Your task to perform on an android device: turn off airplane mode Image 0: 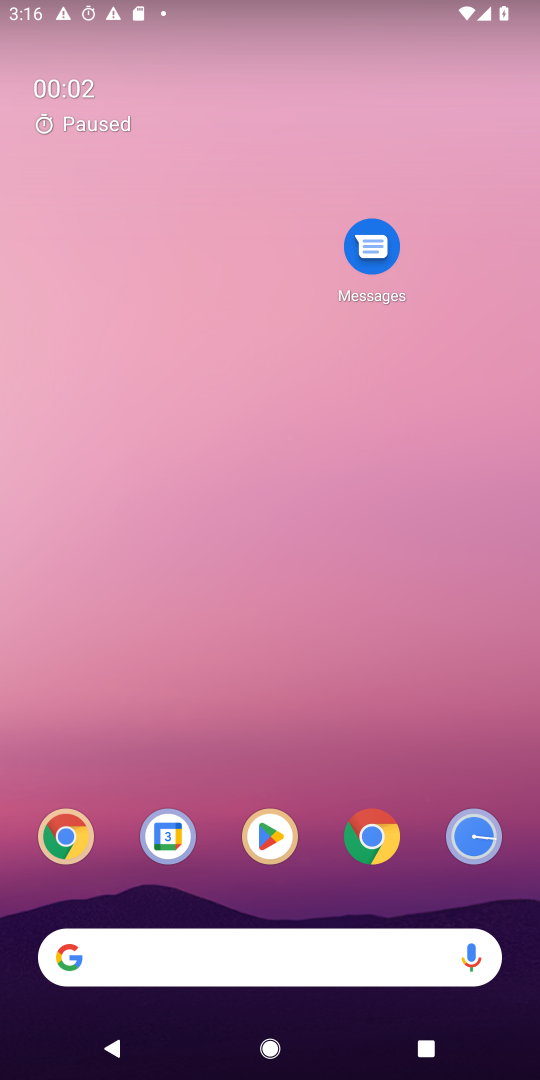
Step 0: drag from (222, 629) to (384, 156)
Your task to perform on an android device: turn off airplane mode Image 1: 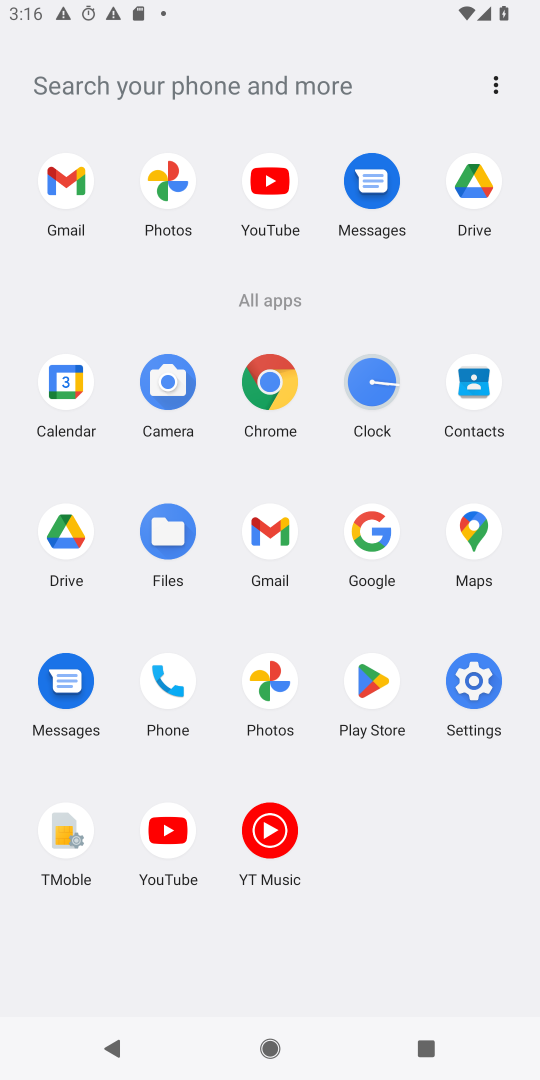
Step 1: click (474, 714)
Your task to perform on an android device: turn off airplane mode Image 2: 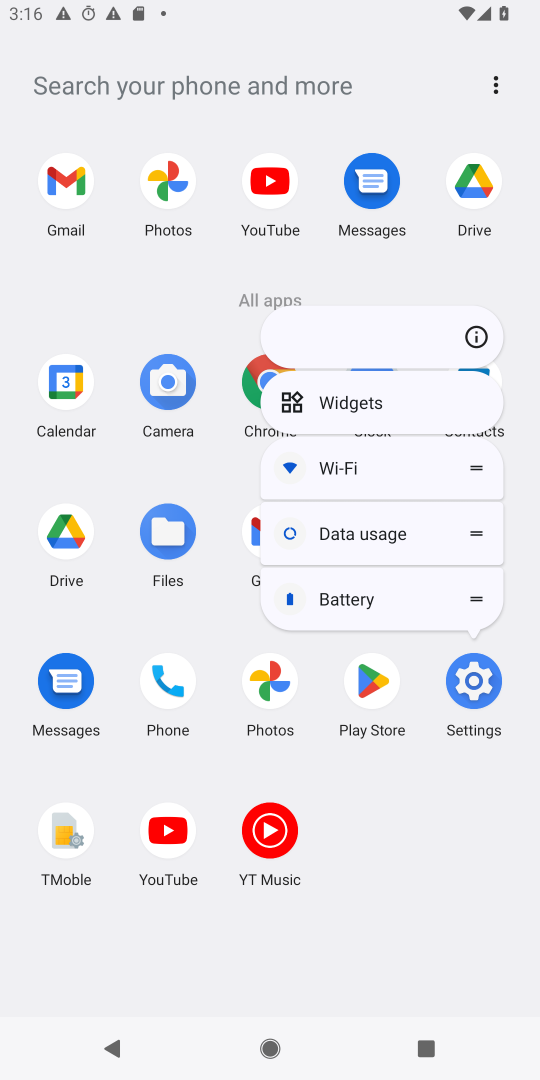
Step 2: click (474, 698)
Your task to perform on an android device: turn off airplane mode Image 3: 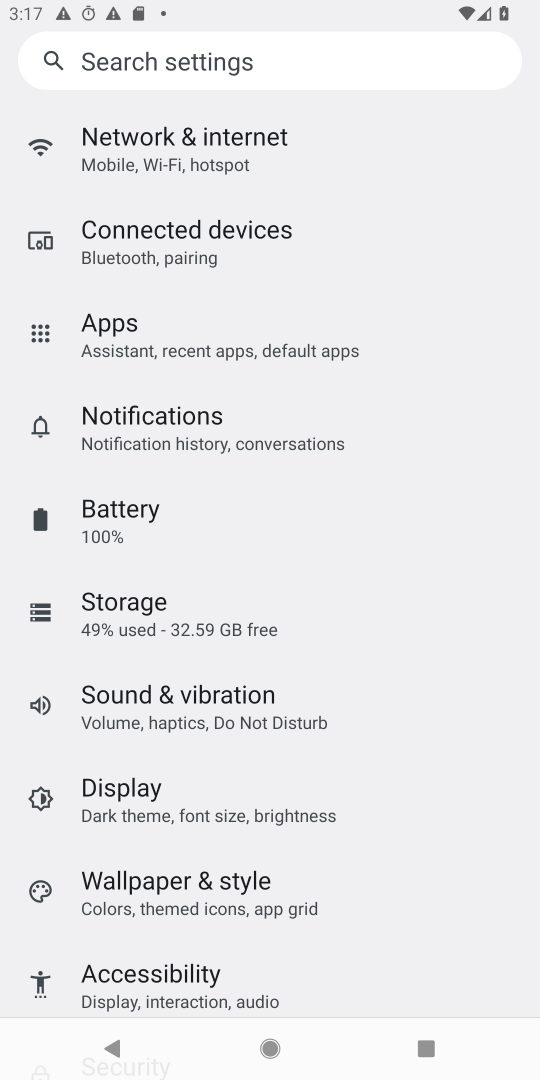
Step 3: click (262, 153)
Your task to perform on an android device: turn off airplane mode Image 4: 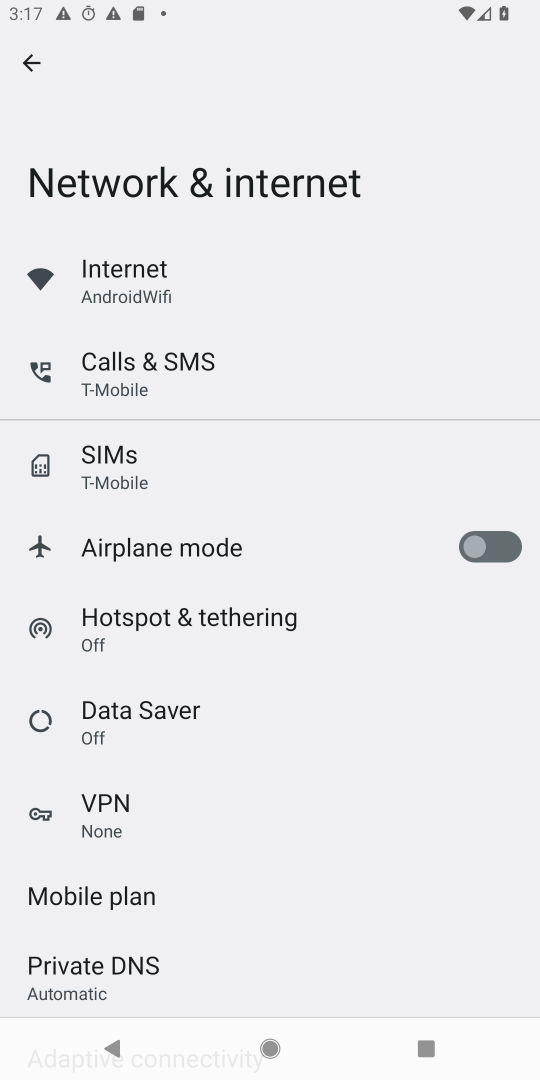
Step 4: task complete